Your task to perform on an android device: change the upload size in google photos Image 0: 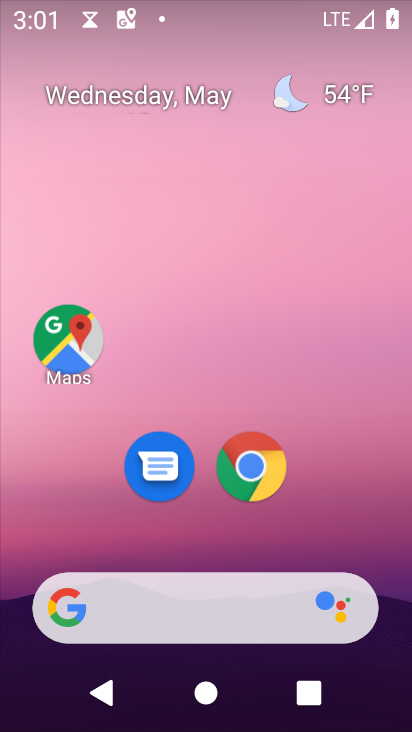
Step 0: drag from (362, 520) to (310, 205)
Your task to perform on an android device: change the upload size in google photos Image 1: 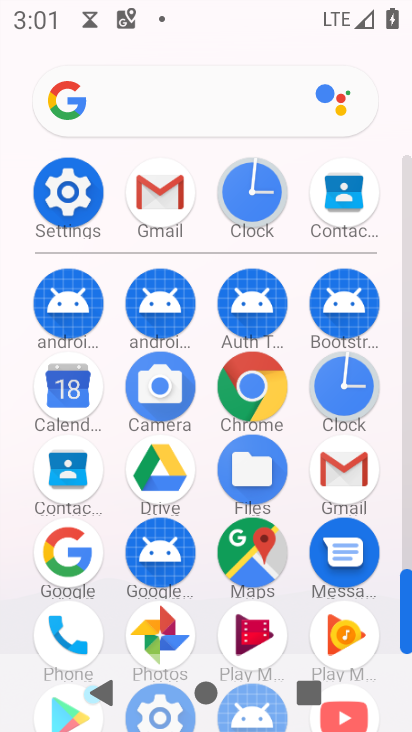
Step 1: click (80, 214)
Your task to perform on an android device: change the upload size in google photos Image 2: 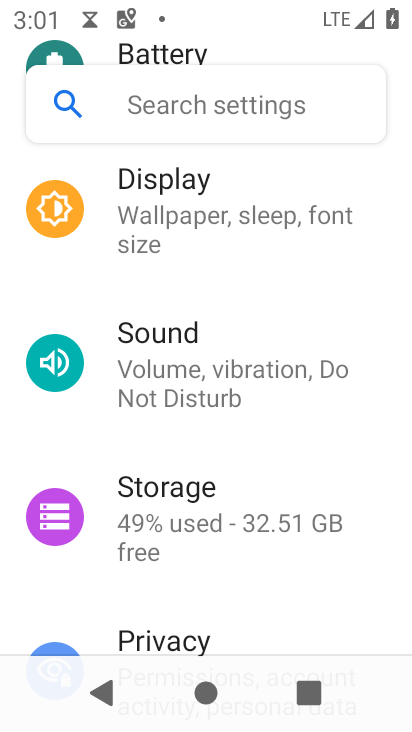
Step 2: click (214, 261)
Your task to perform on an android device: change the upload size in google photos Image 3: 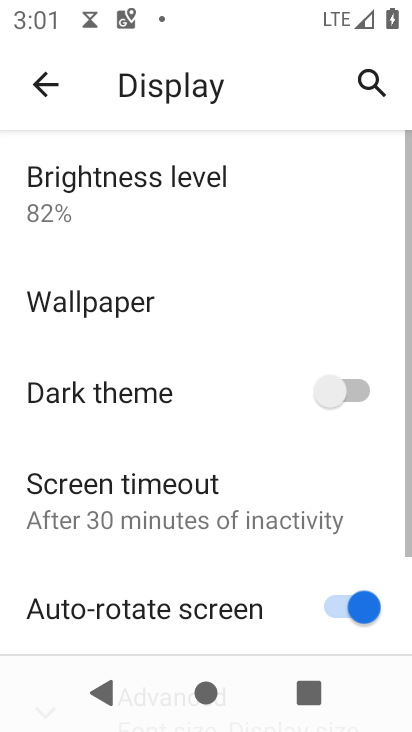
Step 3: press home button
Your task to perform on an android device: change the upload size in google photos Image 4: 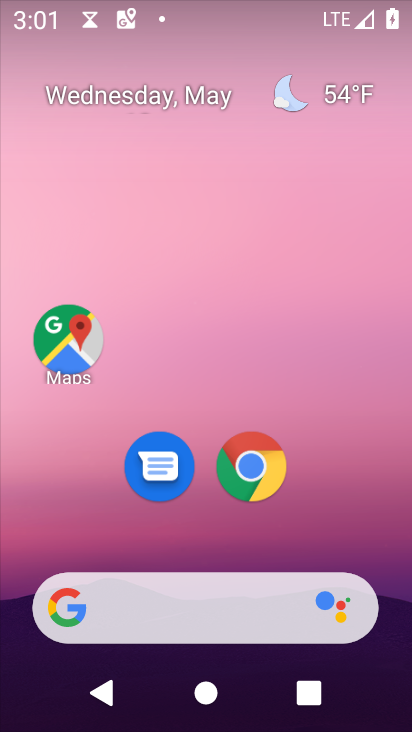
Step 4: drag from (377, 562) to (253, 164)
Your task to perform on an android device: change the upload size in google photos Image 5: 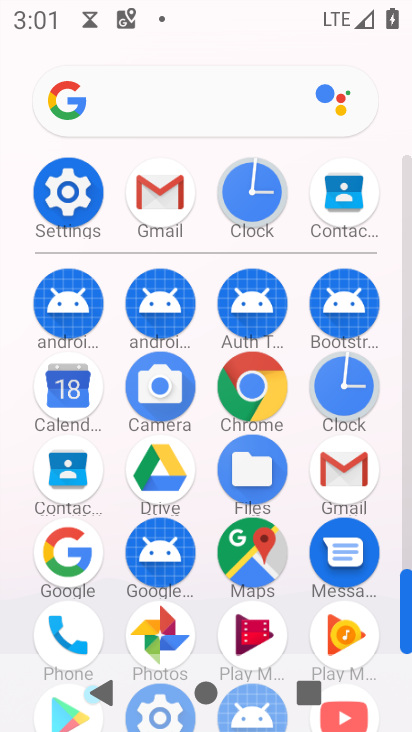
Step 5: click (160, 627)
Your task to perform on an android device: change the upload size in google photos Image 6: 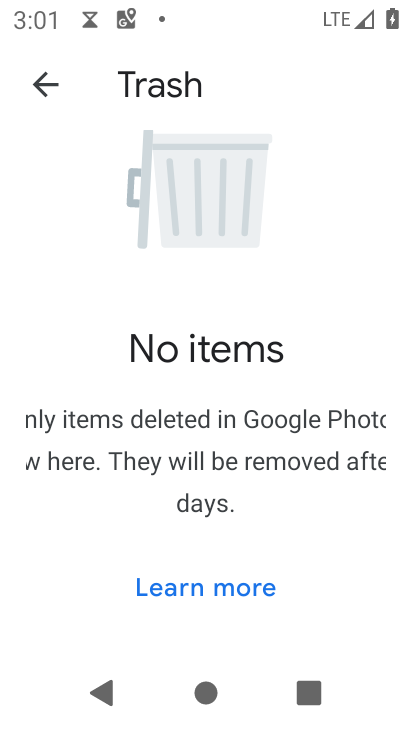
Step 6: click (58, 67)
Your task to perform on an android device: change the upload size in google photos Image 7: 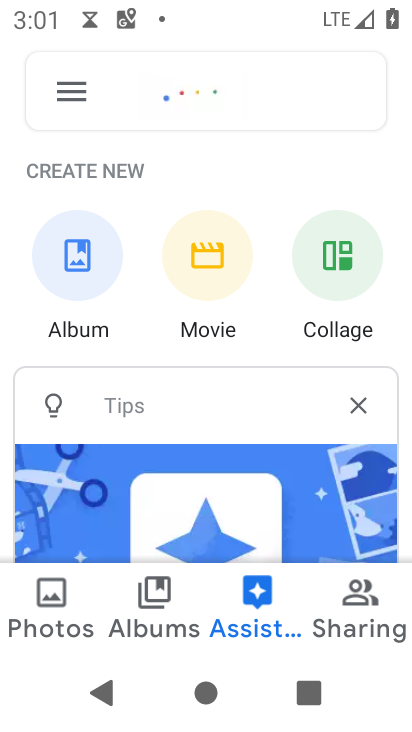
Step 7: click (70, 90)
Your task to perform on an android device: change the upload size in google photos Image 8: 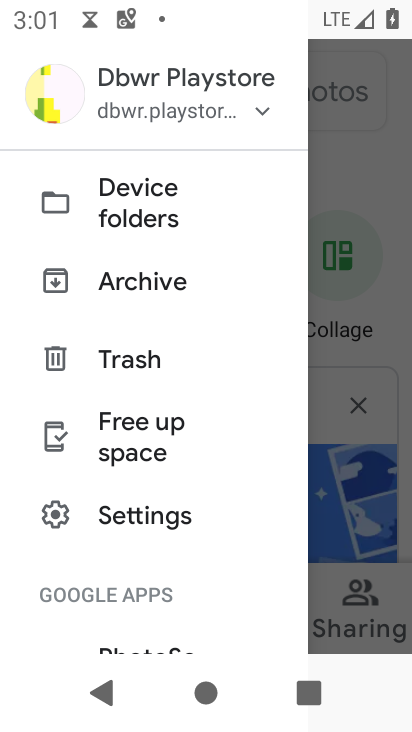
Step 8: click (169, 533)
Your task to perform on an android device: change the upload size in google photos Image 9: 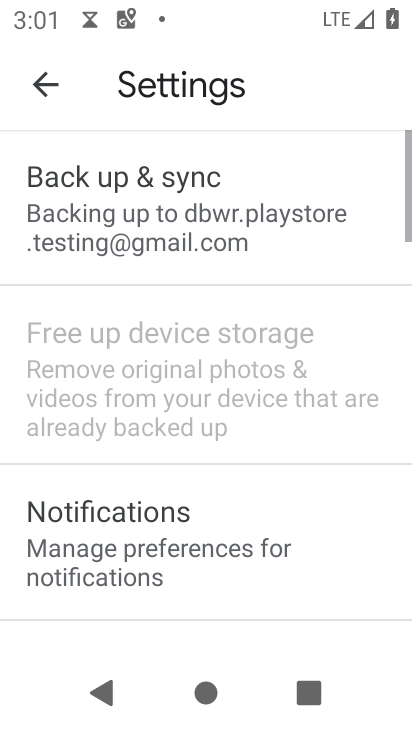
Step 9: click (195, 233)
Your task to perform on an android device: change the upload size in google photos Image 10: 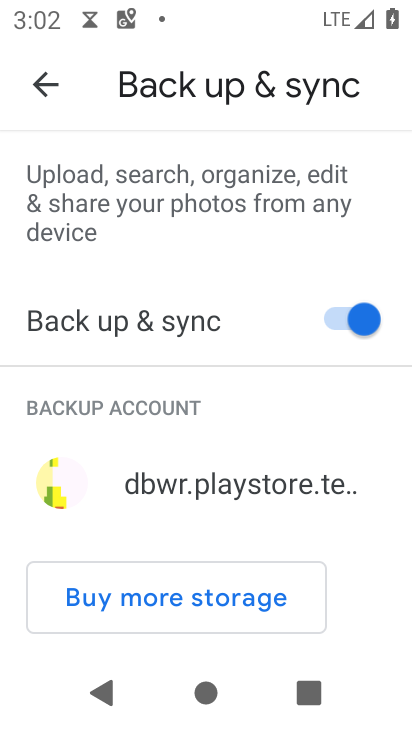
Step 10: drag from (304, 541) to (266, 82)
Your task to perform on an android device: change the upload size in google photos Image 11: 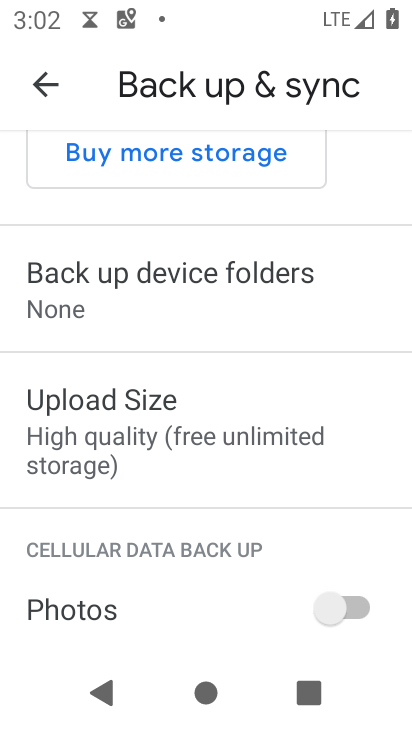
Step 11: click (272, 416)
Your task to perform on an android device: change the upload size in google photos Image 12: 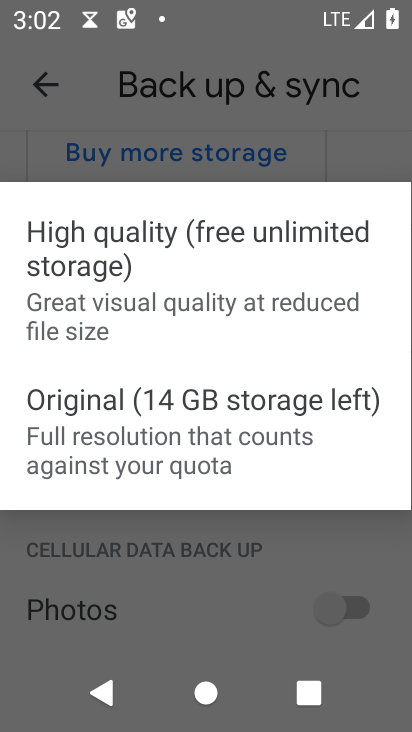
Step 12: click (272, 416)
Your task to perform on an android device: change the upload size in google photos Image 13: 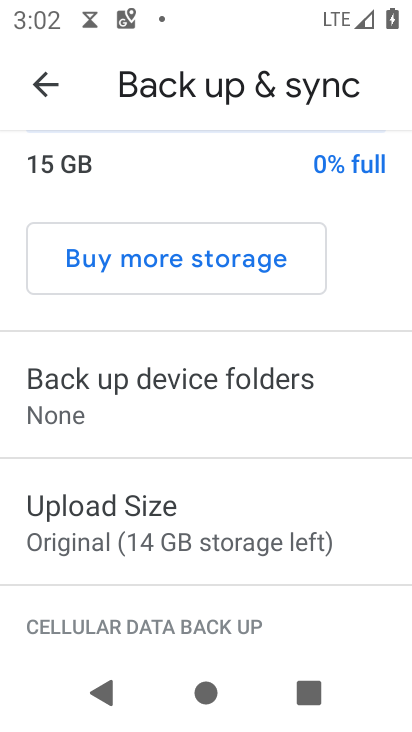
Step 13: task complete